Your task to perform on an android device: change the clock display to show seconds Image 0: 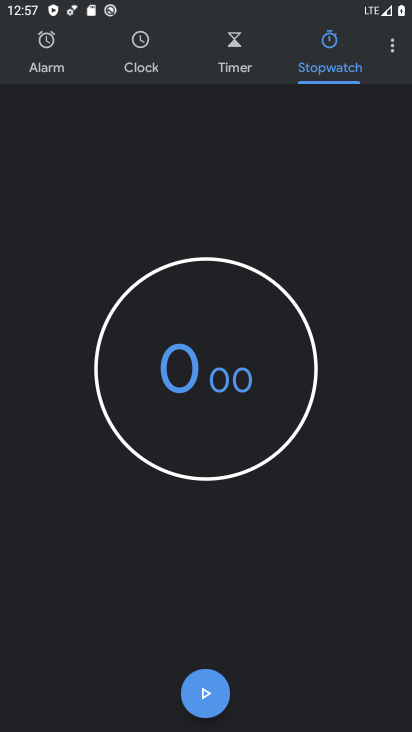
Step 0: press home button
Your task to perform on an android device: change the clock display to show seconds Image 1: 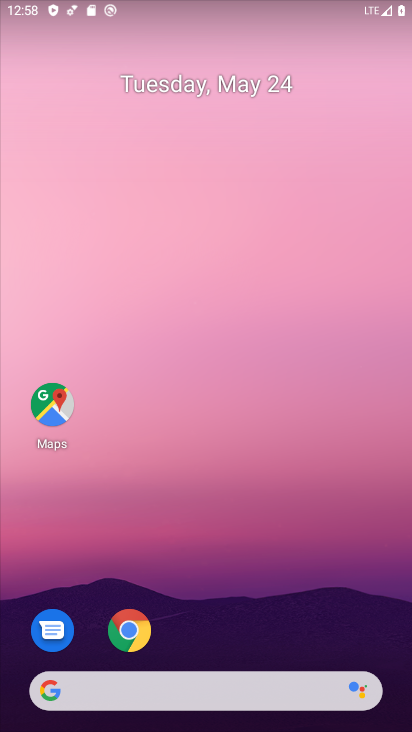
Step 1: drag from (288, 635) to (309, 179)
Your task to perform on an android device: change the clock display to show seconds Image 2: 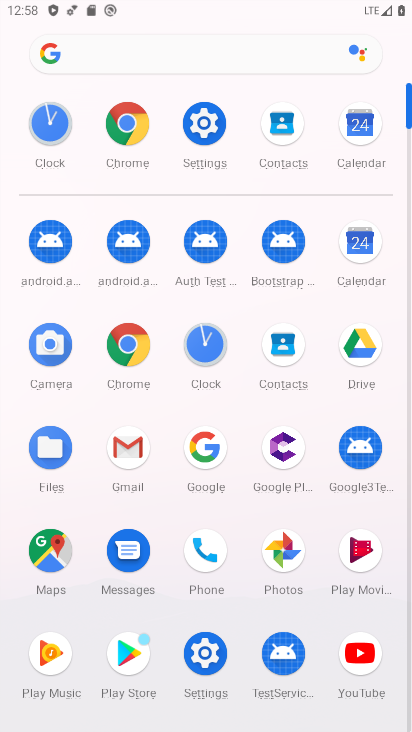
Step 2: click (209, 343)
Your task to perform on an android device: change the clock display to show seconds Image 3: 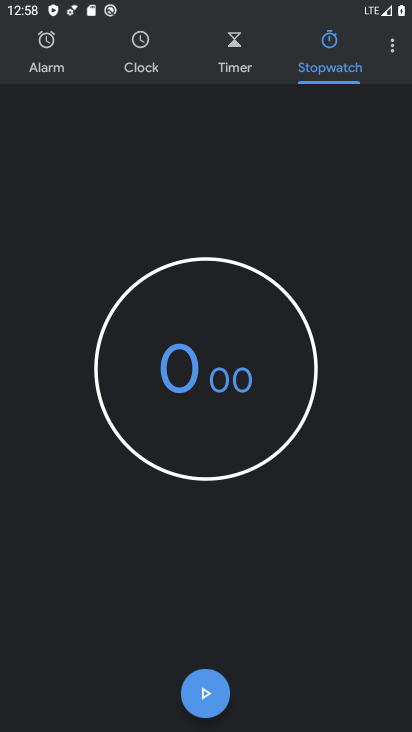
Step 3: click (394, 55)
Your task to perform on an android device: change the clock display to show seconds Image 4: 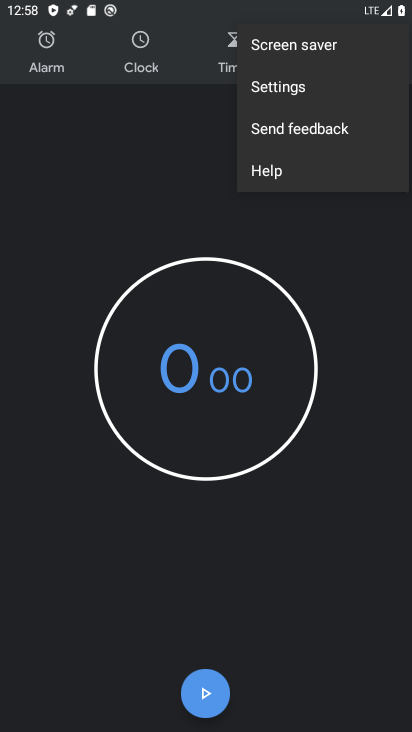
Step 4: click (315, 97)
Your task to perform on an android device: change the clock display to show seconds Image 5: 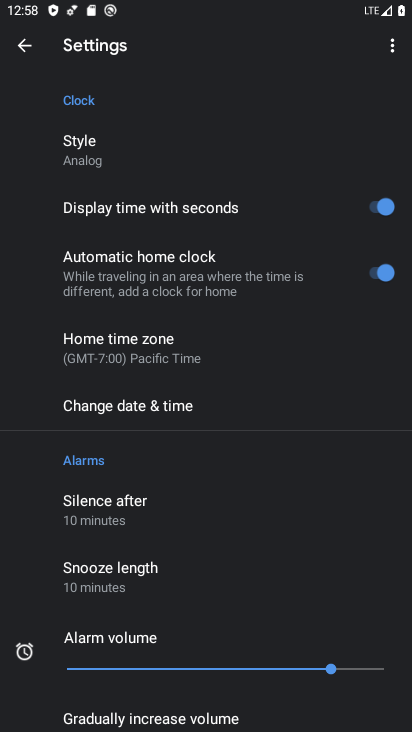
Step 5: task complete